Your task to perform on an android device: Go to Android settings Image 0: 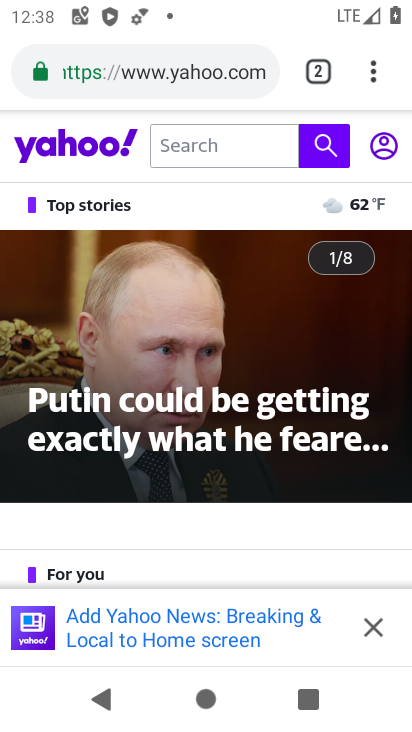
Step 0: press home button
Your task to perform on an android device: Go to Android settings Image 1: 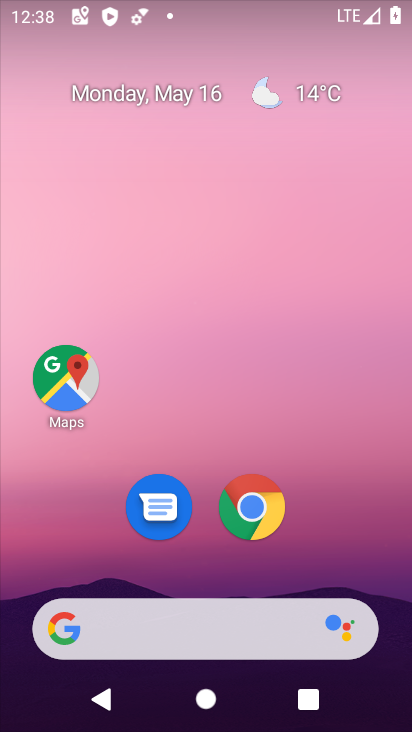
Step 1: drag from (338, 559) to (225, 67)
Your task to perform on an android device: Go to Android settings Image 2: 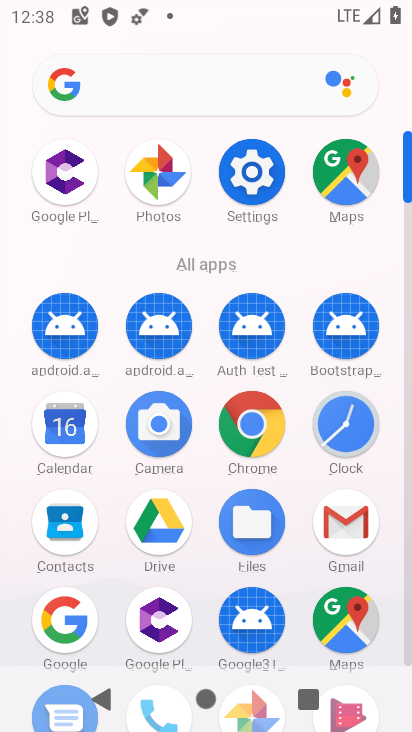
Step 2: click (261, 177)
Your task to perform on an android device: Go to Android settings Image 3: 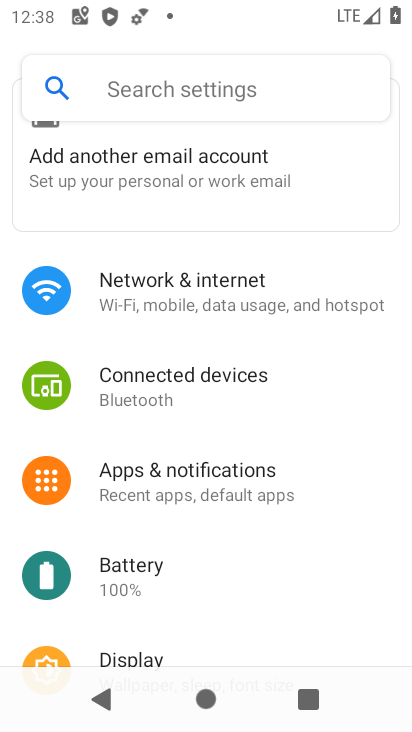
Step 3: drag from (250, 599) to (213, 59)
Your task to perform on an android device: Go to Android settings Image 4: 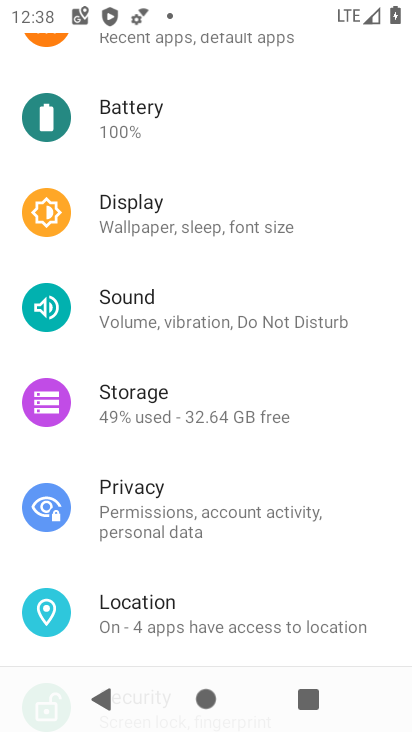
Step 4: drag from (190, 500) to (200, 114)
Your task to perform on an android device: Go to Android settings Image 5: 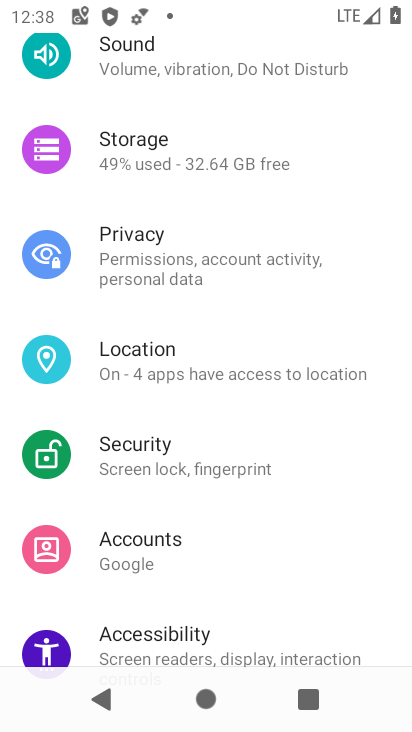
Step 5: drag from (202, 562) to (178, 103)
Your task to perform on an android device: Go to Android settings Image 6: 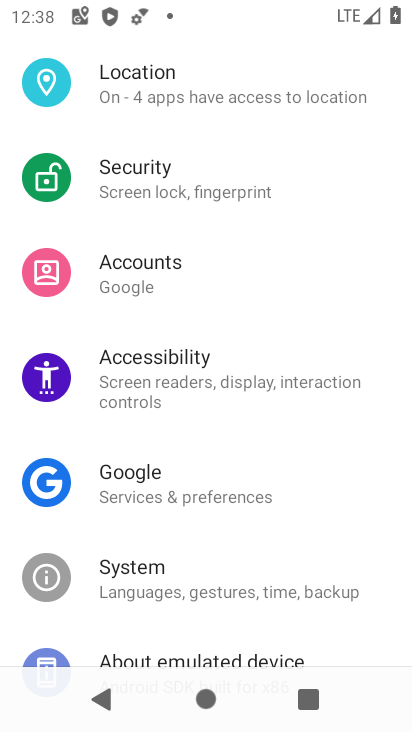
Step 6: drag from (211, 543) to (204, 95)
Your task to perform on an android device: Go to Android settings Image 7: 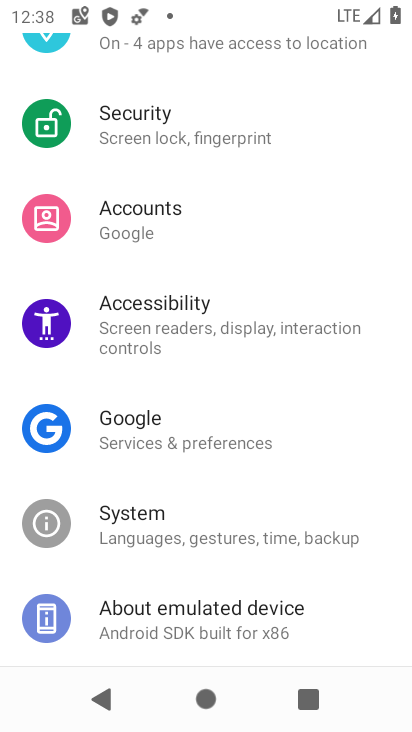
Step 7: click (202, 602)
Your task to perform on an android device: Go to Android settings Image 8: 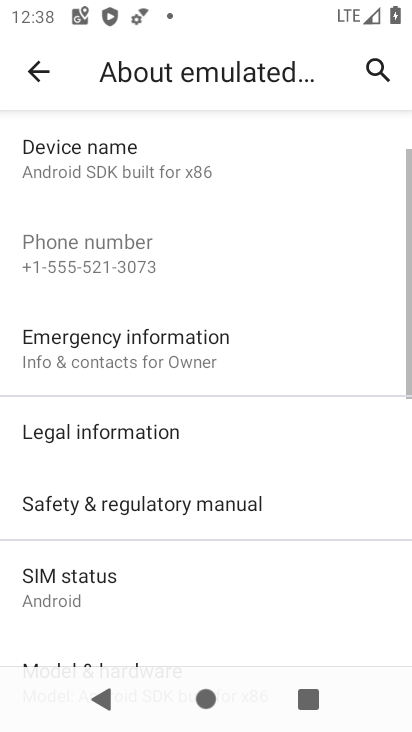
Step 8: drag from (173, 519) to (174, 182)
Your task to perform on an android device: Go to Android settings Image 9: 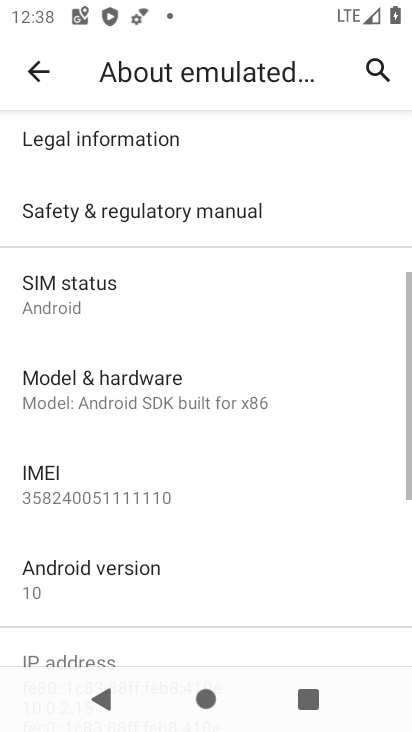
Step 9: click (139, 566)
Your task to perform on an android device: Go to Android settings Image 10: 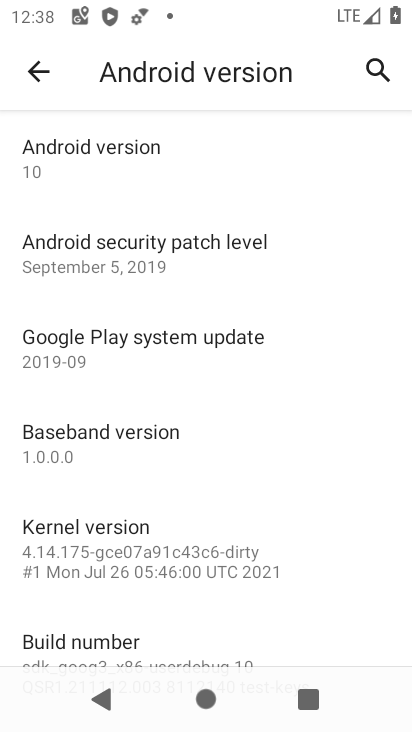
Step 10: click (211, 166)
Your task to perform on an android device: Go to Android settings Image 11: 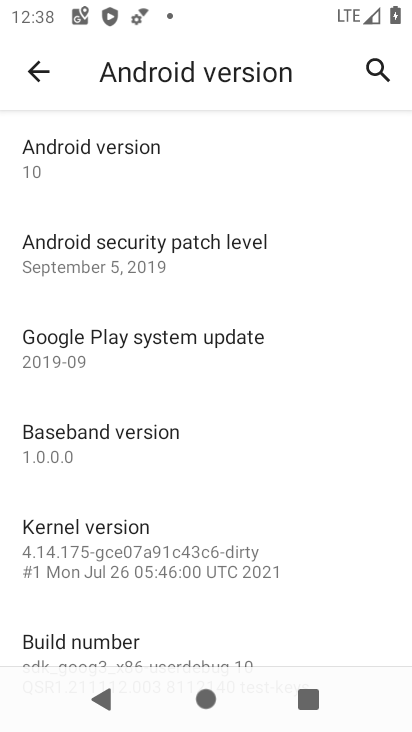
Step 11: task complete